Your task to perform on an android device: turn on airplane mode Image 0: 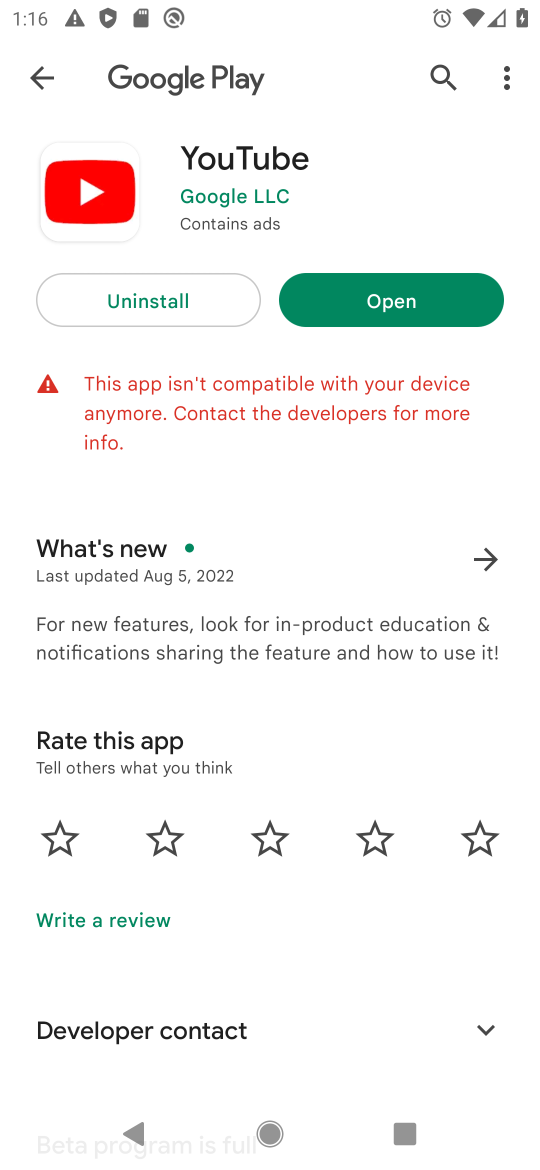
Step 0: click (43, 100)
Your task to perform on an android device: turn on airplane mode Image 1: 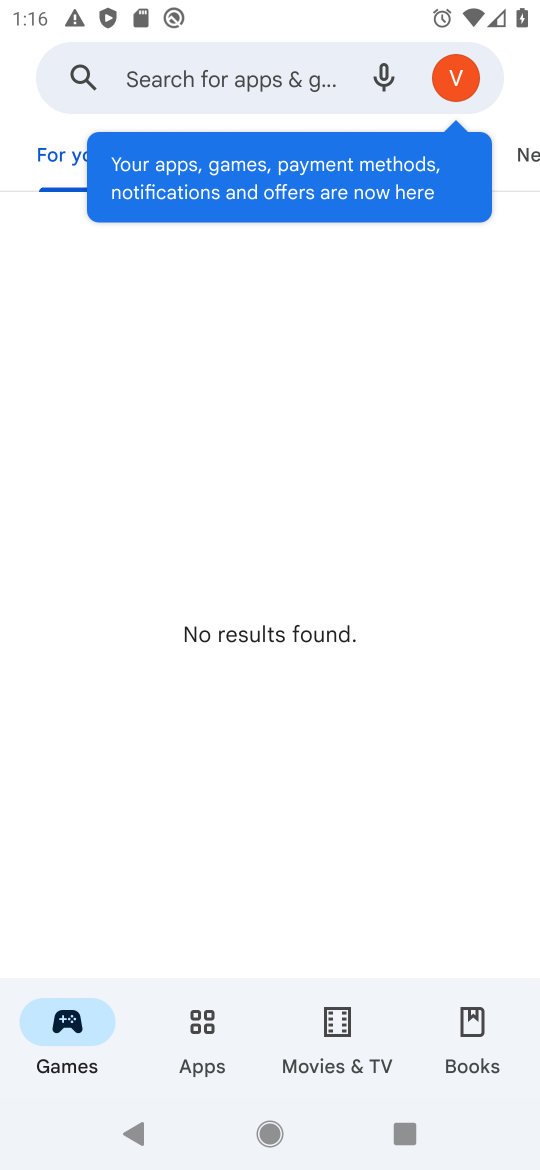
Step 1: task complete